Your task to perform on an android device: Open calendar and show me the first week of next month Image 0: 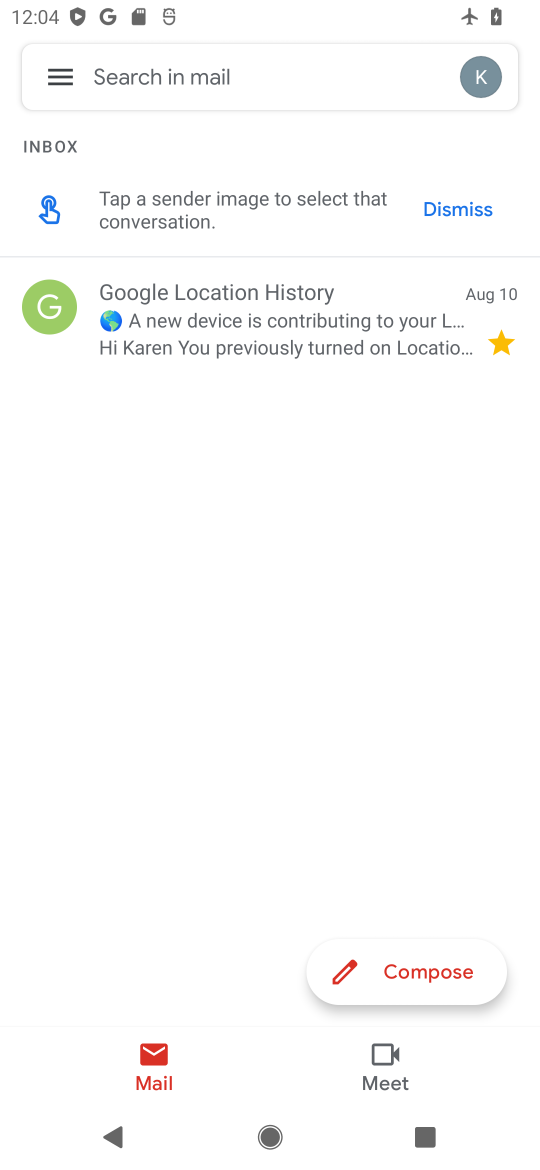
Step 0: press home button
Your task to perform on an android device: Open calendar and show me the first week of next month Image 1: 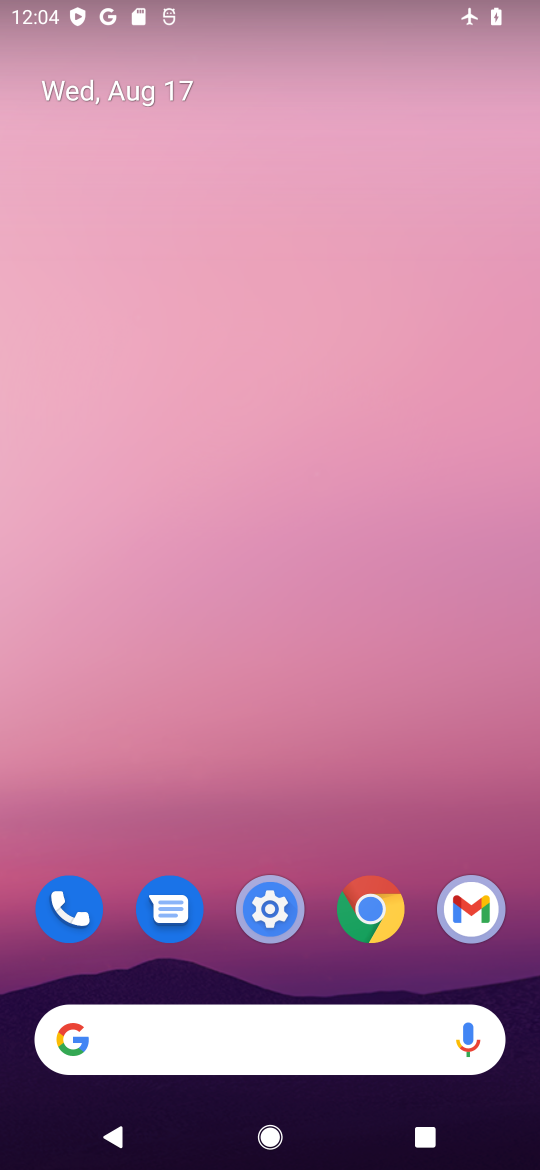
Step 1: drag from (269, 828) to (382, 53)
Your task to perform on an android device: Open calendar and show me the first week of next month Image 2: 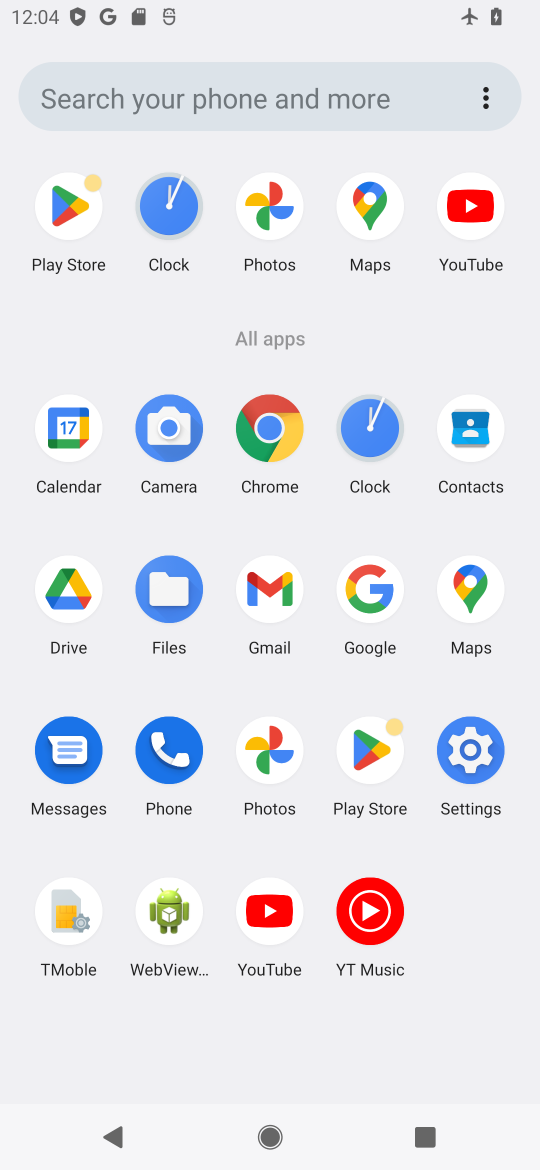
Step 2: click (65, 418)
Your task to perform on an android device: Open calendar and show me the first week of next month Image 3: 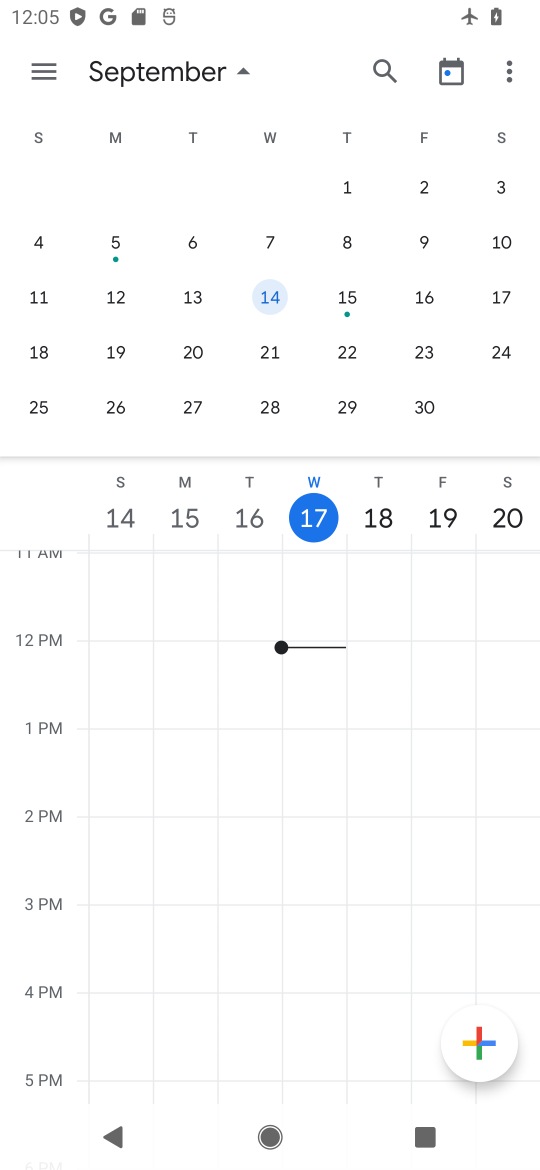
Step 3: click (346, 182)
Your task to perform on an android device: Open calendar and show me the first week of next month Image 4: 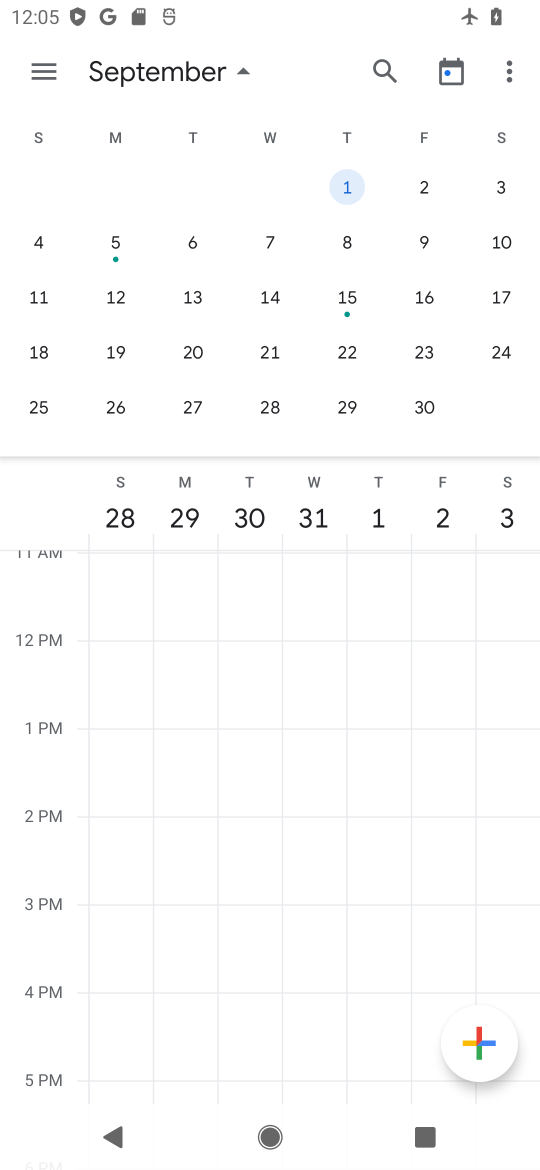
Step 4: task complete